Your task to perform on an android device: change timer sound Image 0: 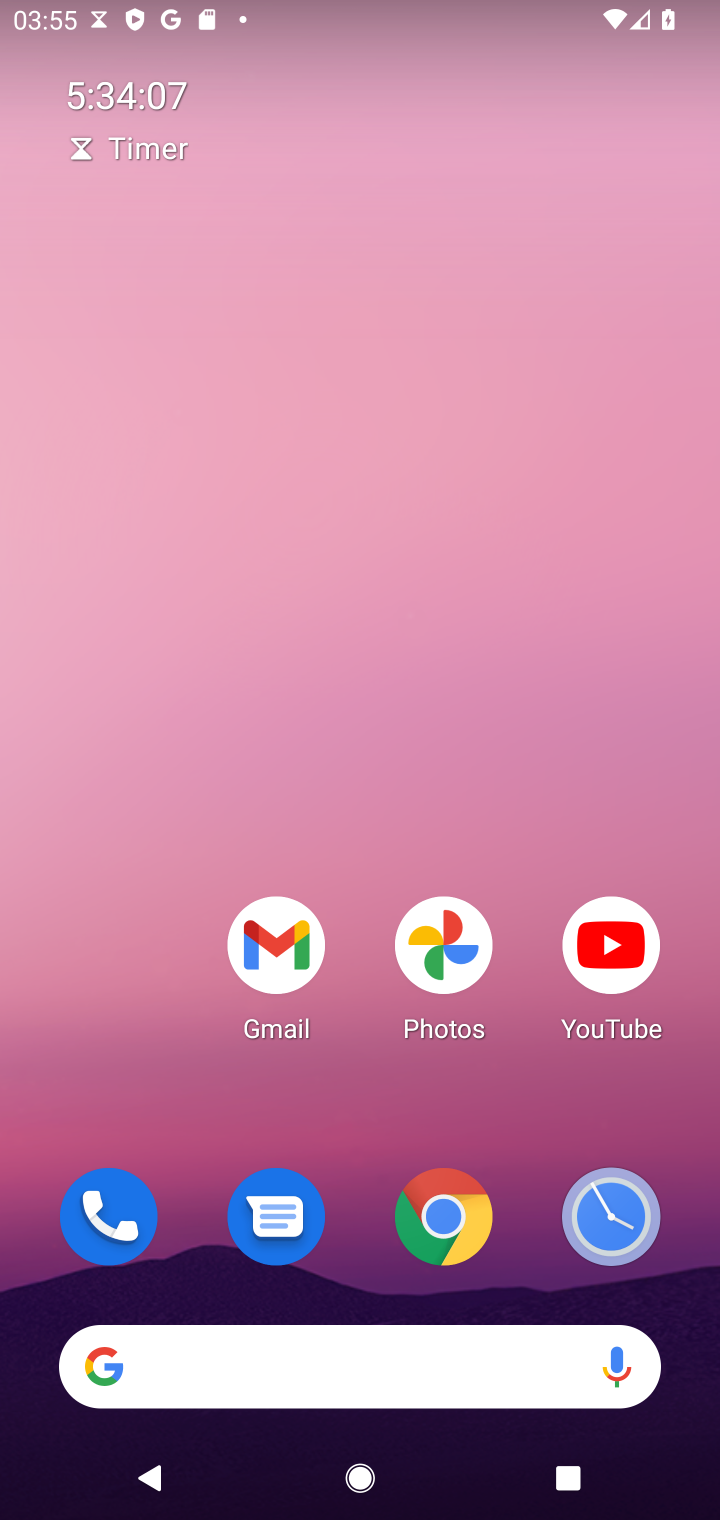
Step 0: click (591, 1213)
Your task to perform on an android device: change timer sound Image 1: 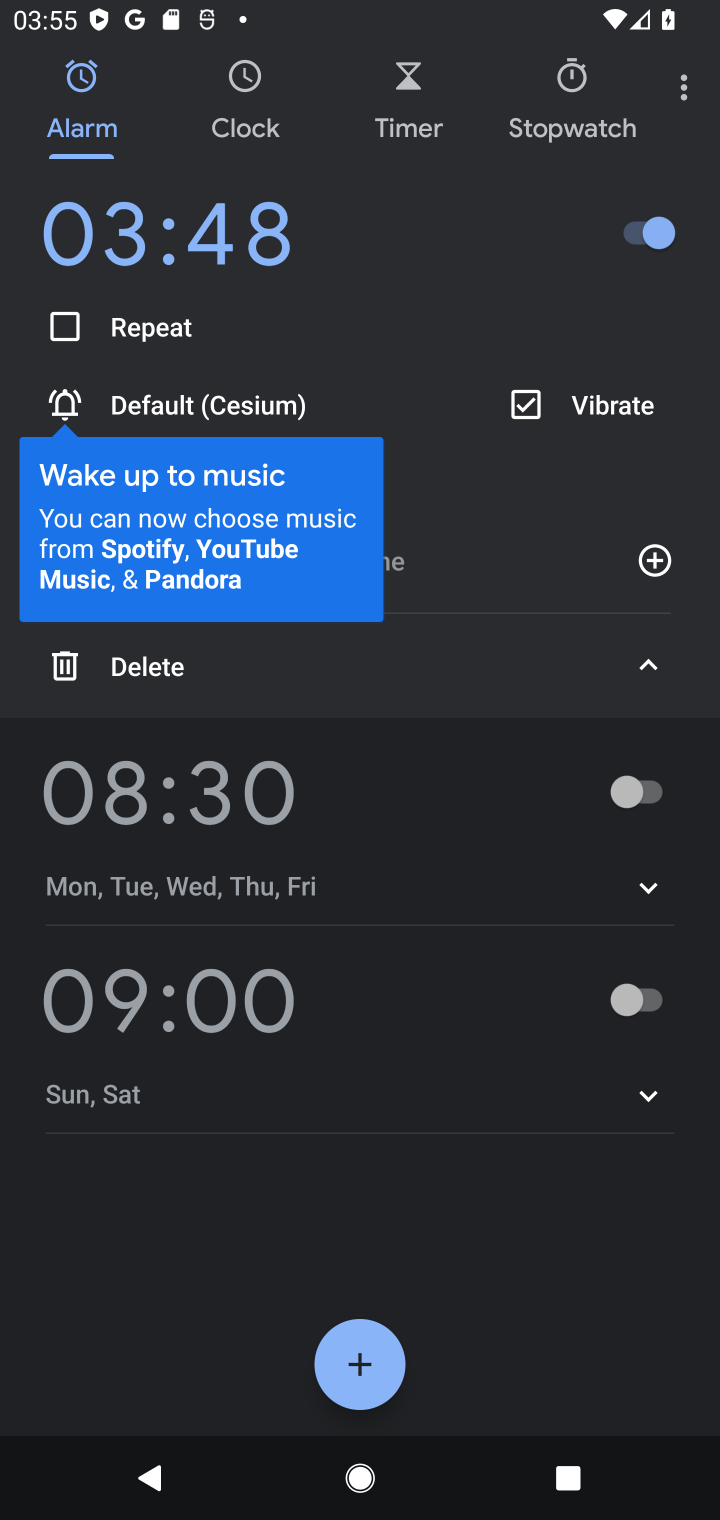
Step 1: click (690, 88)
Your task to perform on an android device: change timer sound Image 2: 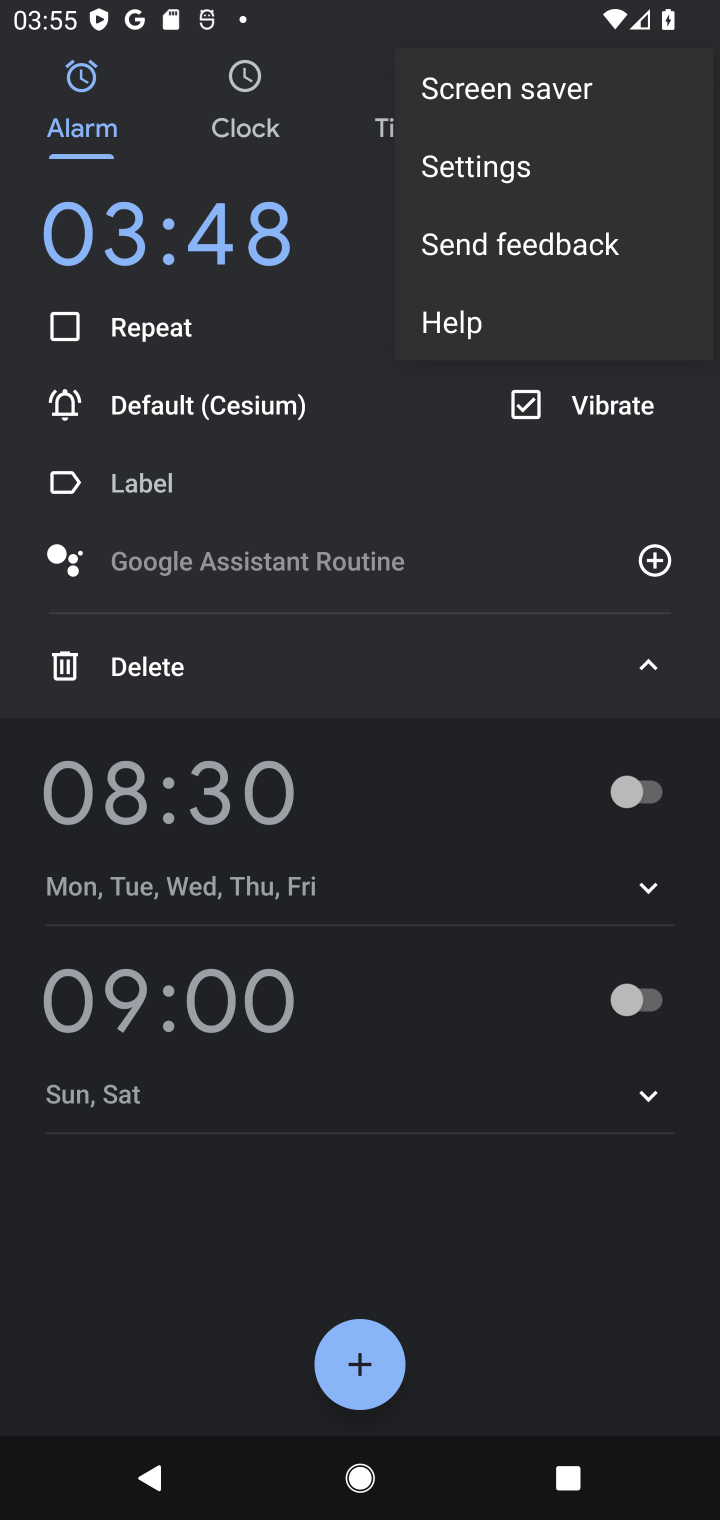
Step 2: click (475, 165)
Your task to perform on an android device: change timer sound Image 3: 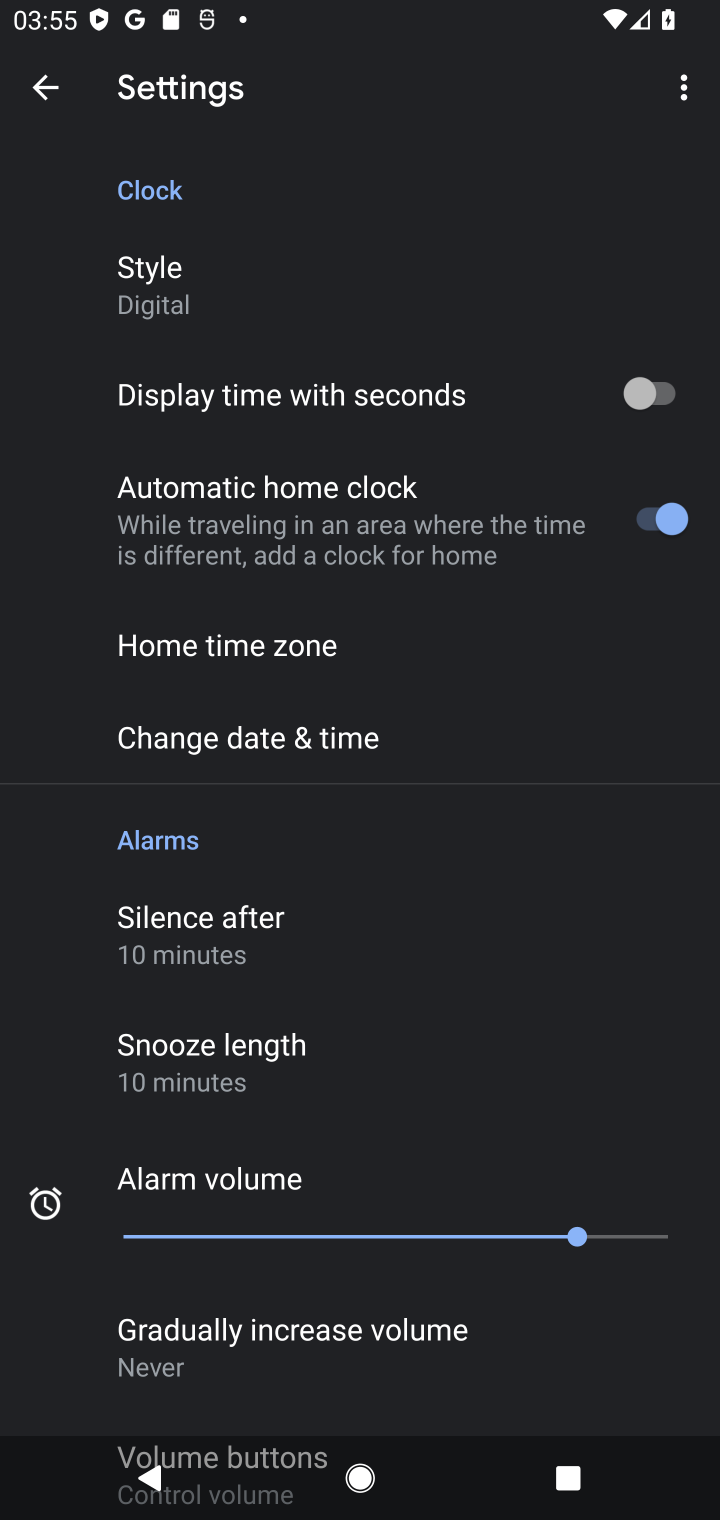
Step 3: drag from (284, 1317) to (282, 433)
Your task to perform on an android device: change timer sound Image 4: 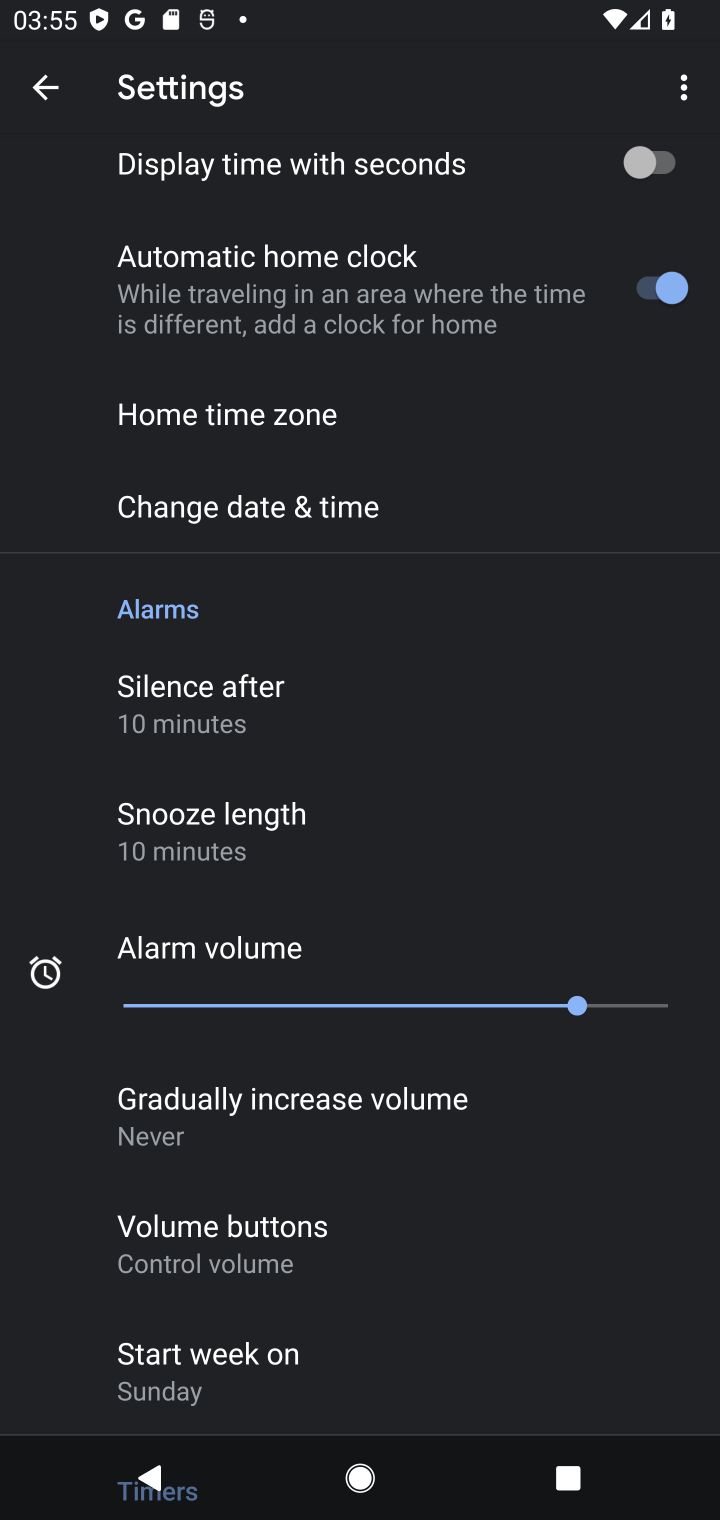
Step 4: drag from (292, 1164) to (310, 251)
Your task to perform on an android device: change timer sound Image 5: 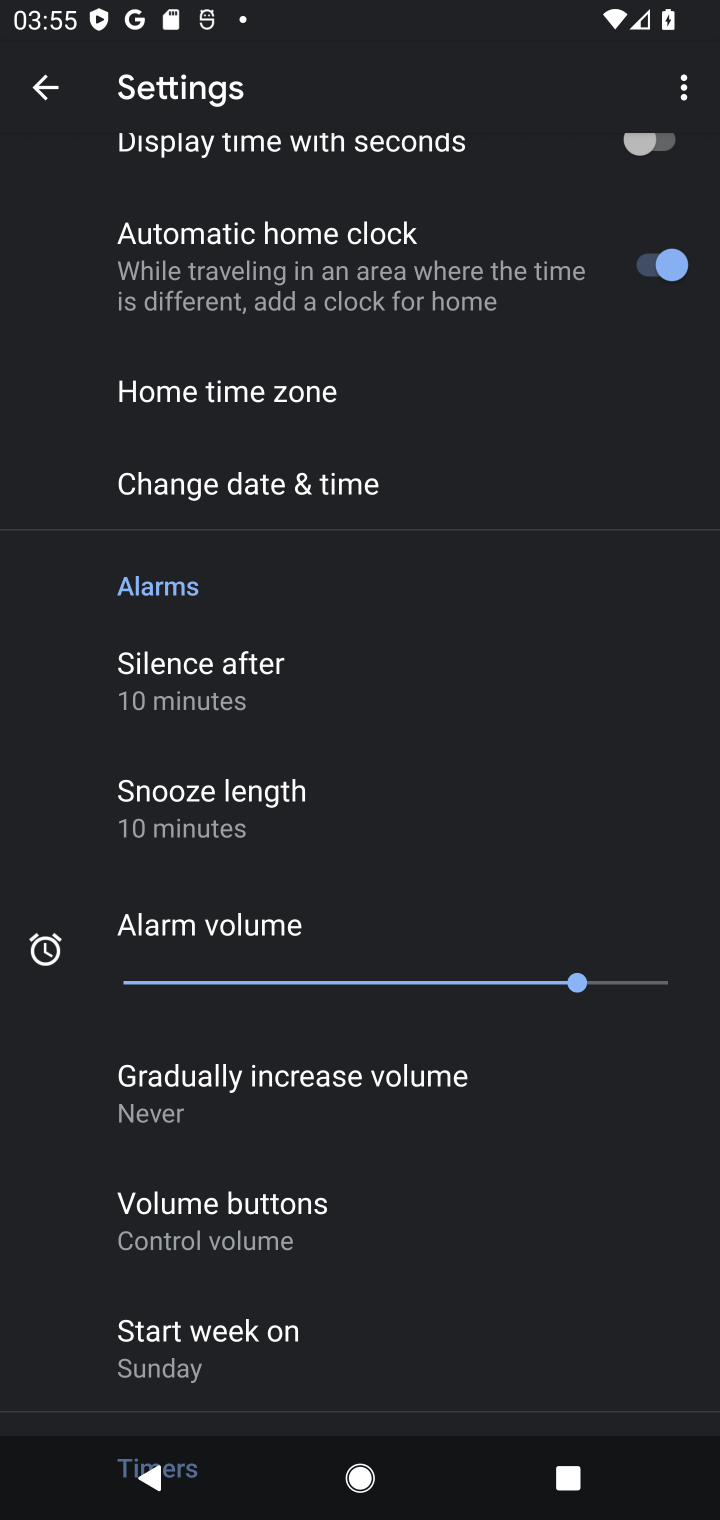
Step 5: drag from (305, 1229) to (371, 261)
Your task to perform on an android device: change timer sound Image 6: 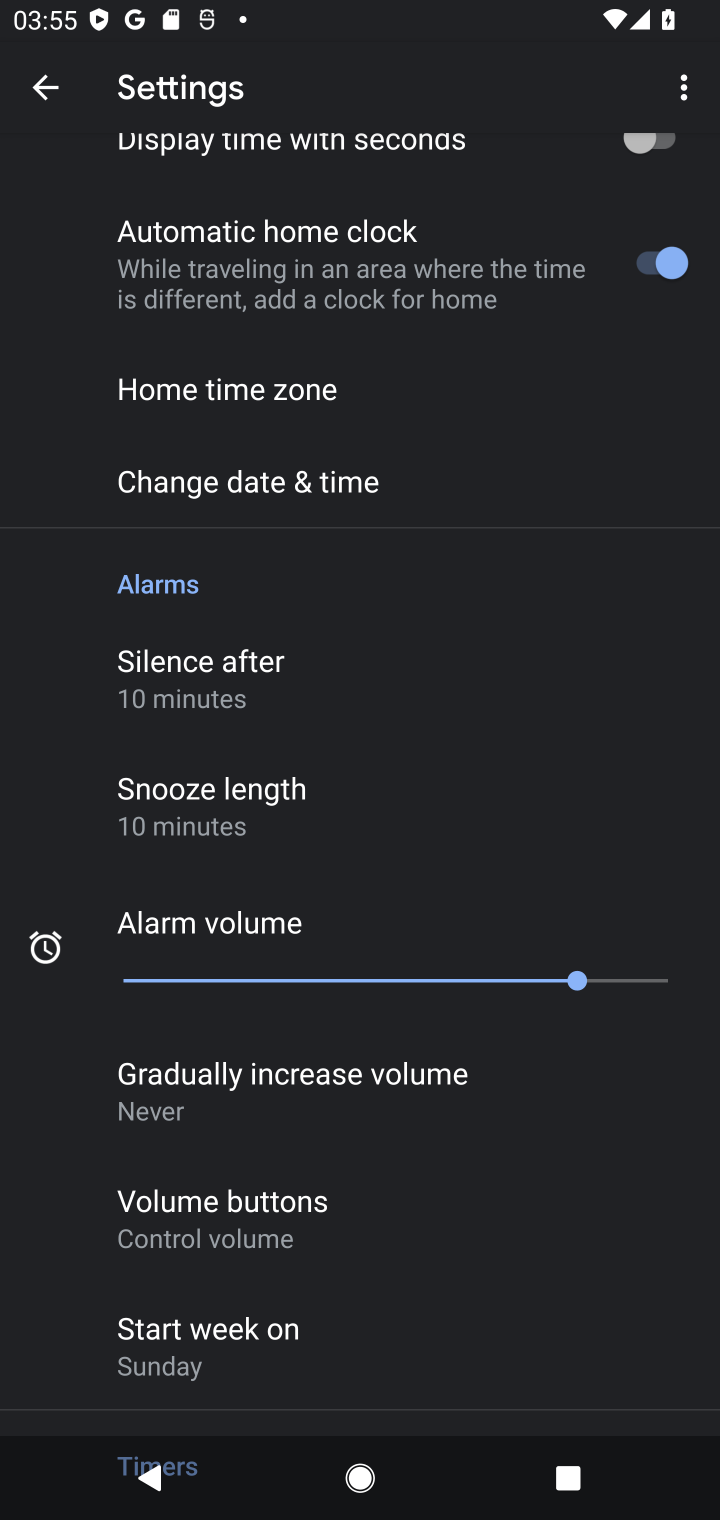
Step 6: drag from (388, 1048) to (378, 704)
Your task to perform on an android device: change timer sound Image 7: 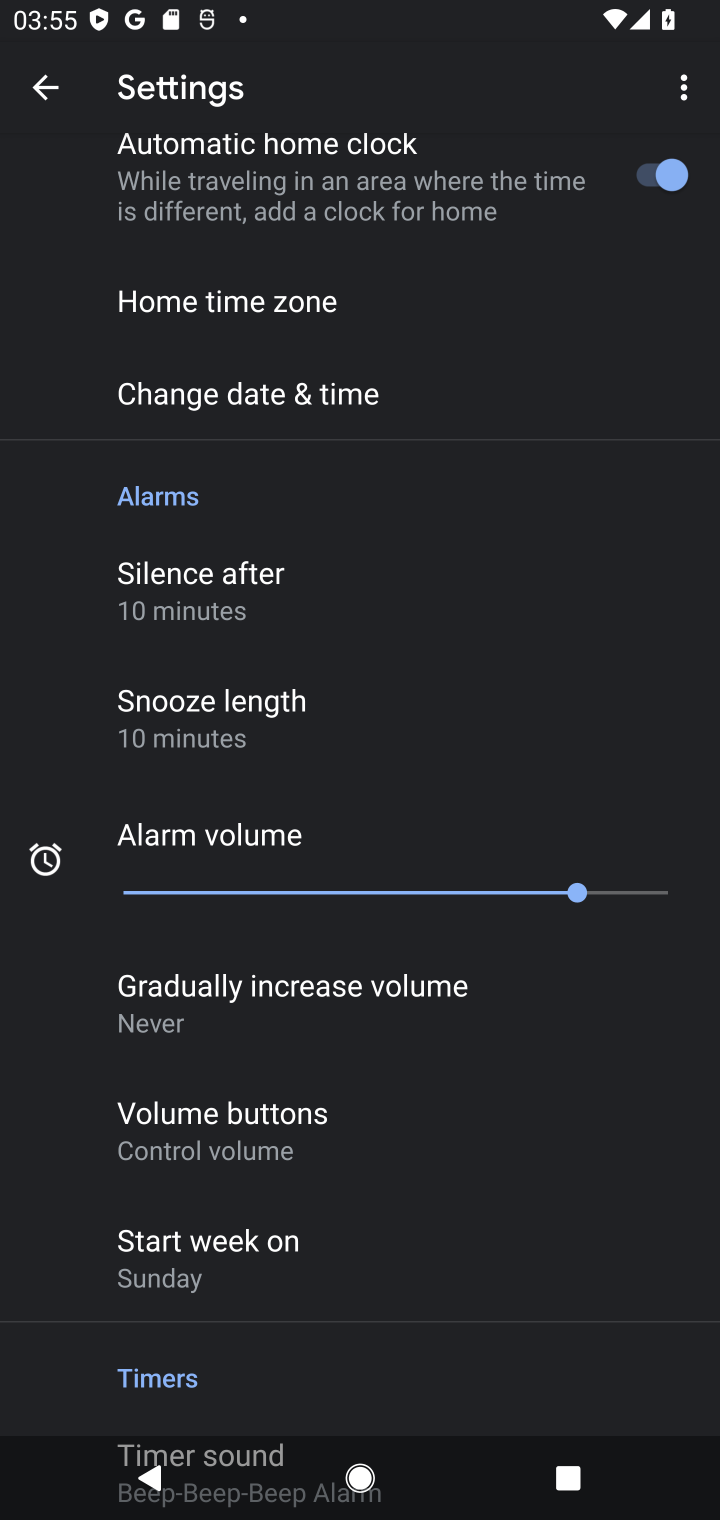
Step 7: drag from (334, 1281) to (534, 26)
Your task to perform on an android device: change timer sound Image 8: 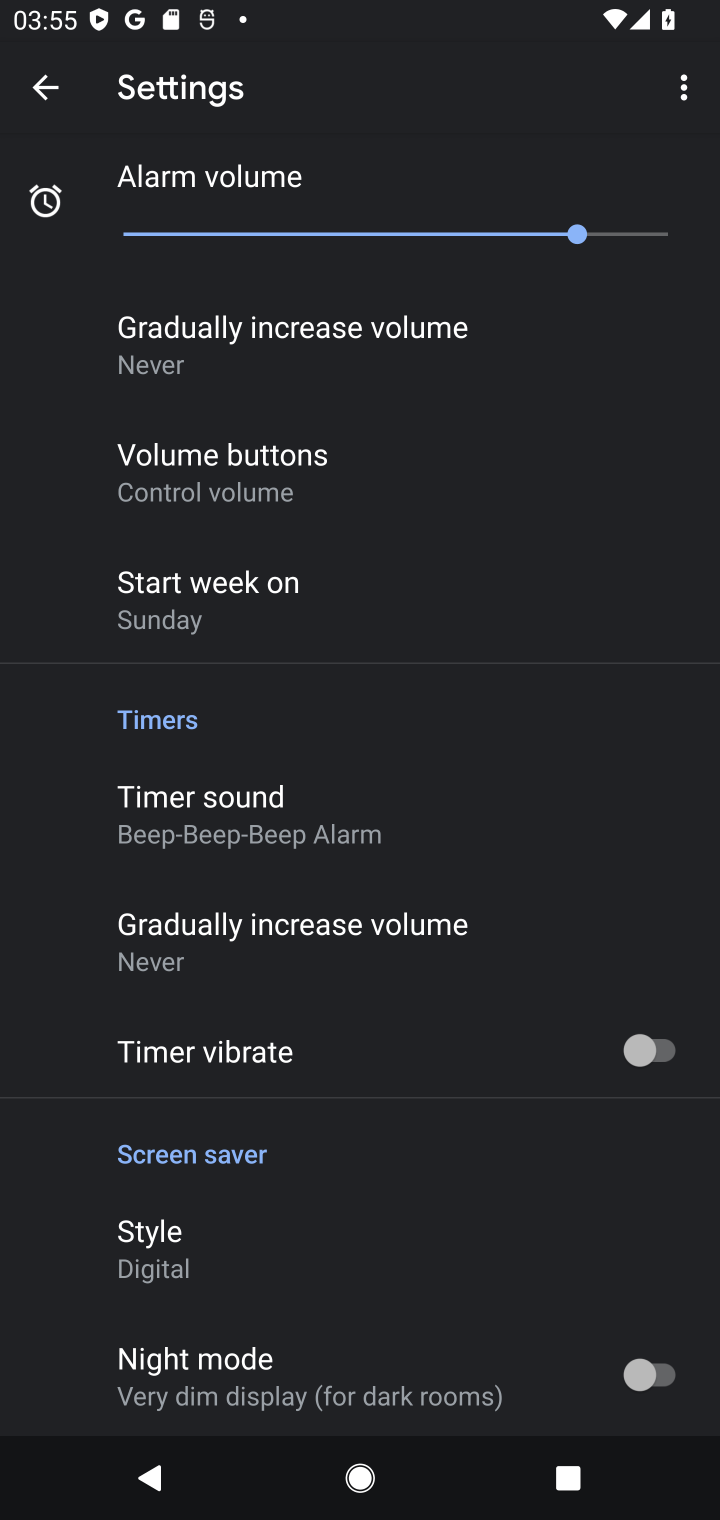
Step 8: click (229, 812)
Your task to perform on an android device: change timer sound Image 9: 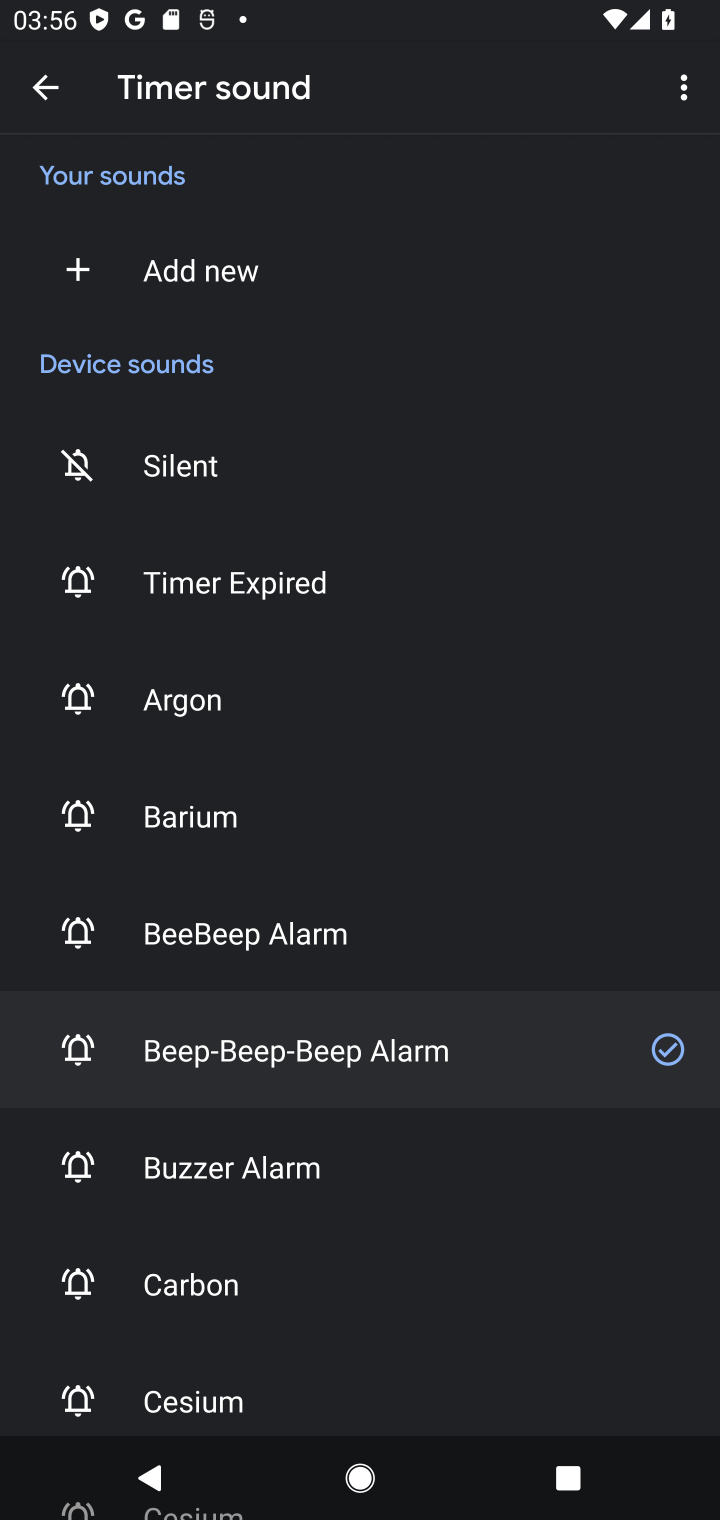
Step 9: click (229, 812)
Your task to perform on an android device: change timer sound Image 10: 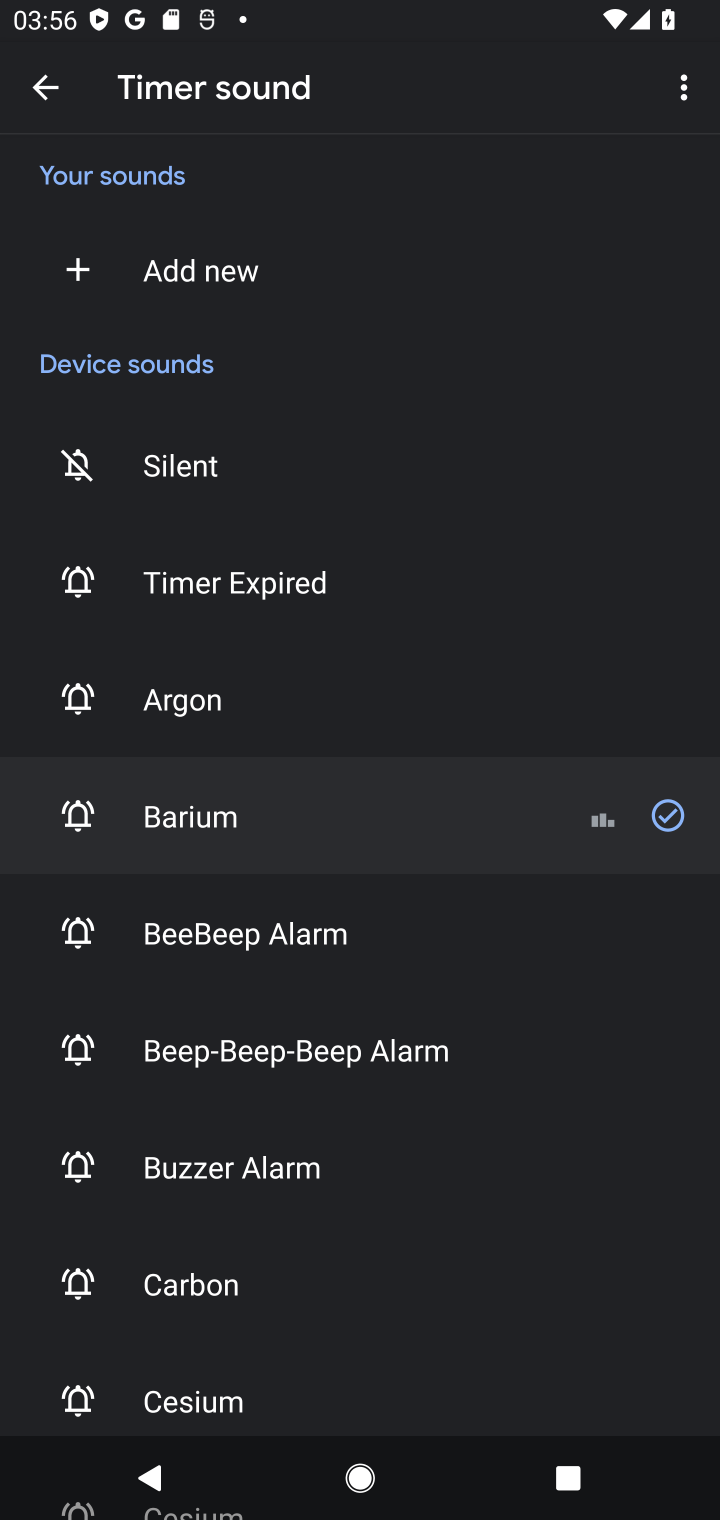
Step 10: task complete